Your task to perform on an android device: open app "Etsy: Buy & Sell Unique Items" Image 0: 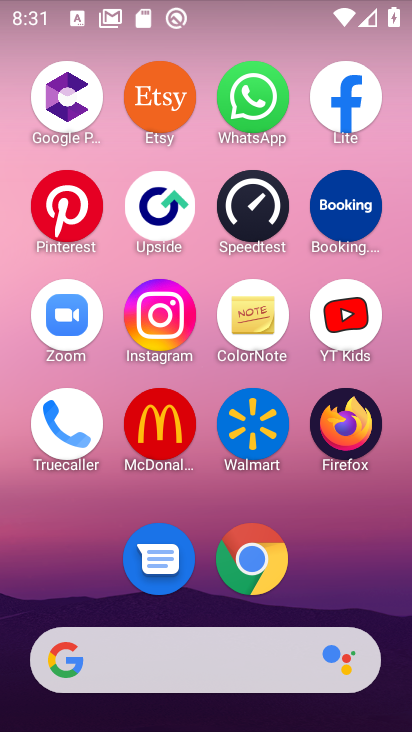
Step 0: drag from (190, 508) to (220, 118)
Your task to perform on an android device: open app "Etsy: Buy & Sell Unique Items" Image 1: 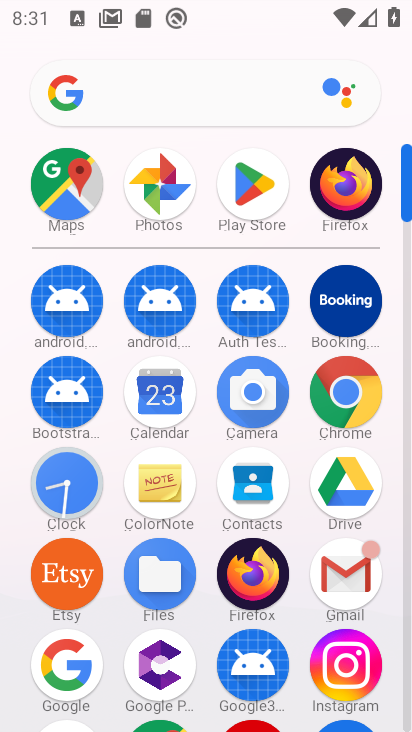
Step 1: click (257, 206)
Your task to perform on an android device: open app "Etsy: Buy & Sell Unique Items" Image 2: 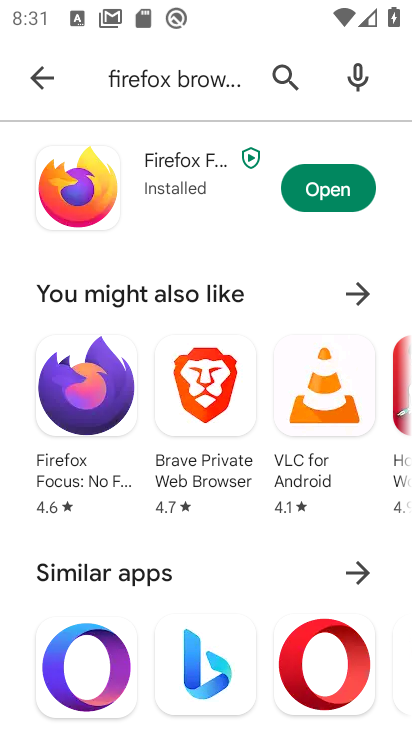
Step 2: click (281, 61)
Your task to perform on an android device: open app "Etsy: Buy & Sell Unique Items" Image 3: 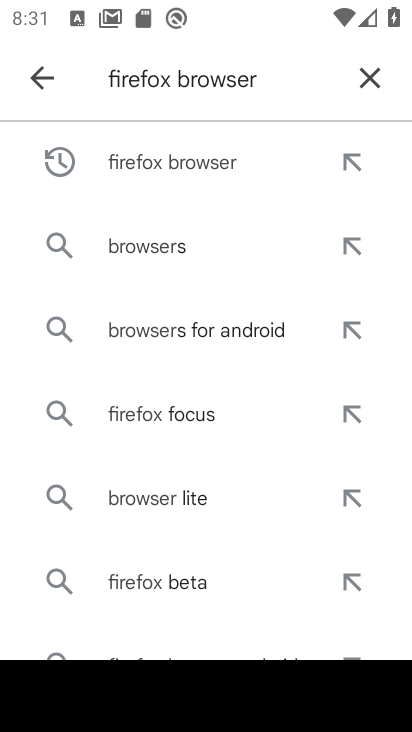
Step 3: click (354, 69)
Your task to perform on an android device: open app "Etsy: Buy & Sell Unique Items" Image 4: 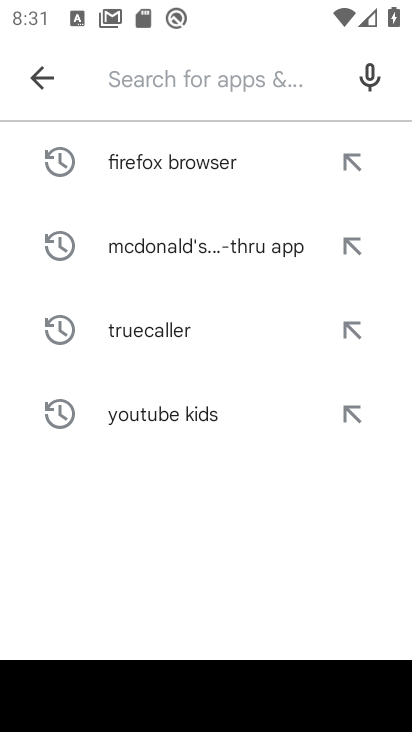
Step 4: type "Etsy: Buy & Sell Unique Item"
Your task to perform on an android device: open app "Etsy: Buy & Sell Unique Items" Image 5: 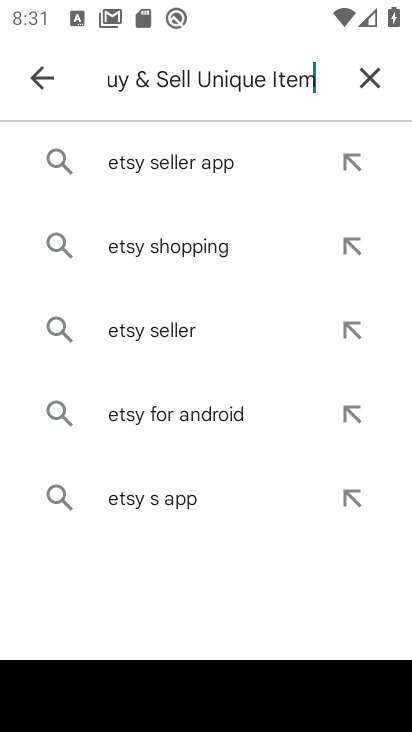
Step 5: type ""
Your task to perform on an android device: open app "Etsy: Buy & Sell Unique Items" Image 6: 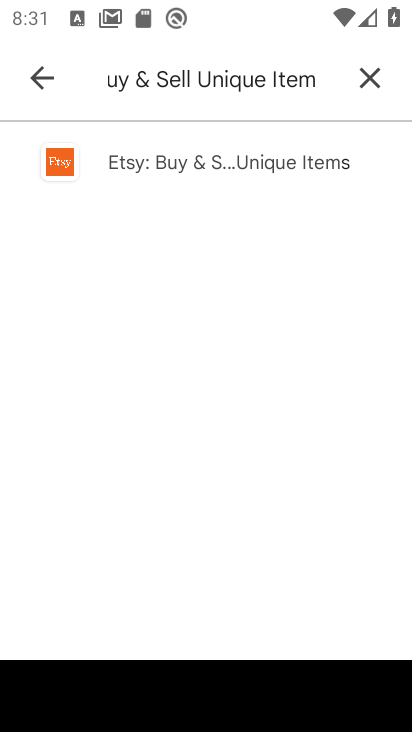
Step 6: click (216, 167)
Your task to perform on an android device: open app "Etsy: Buy & Sell Unique Items" Image 7: 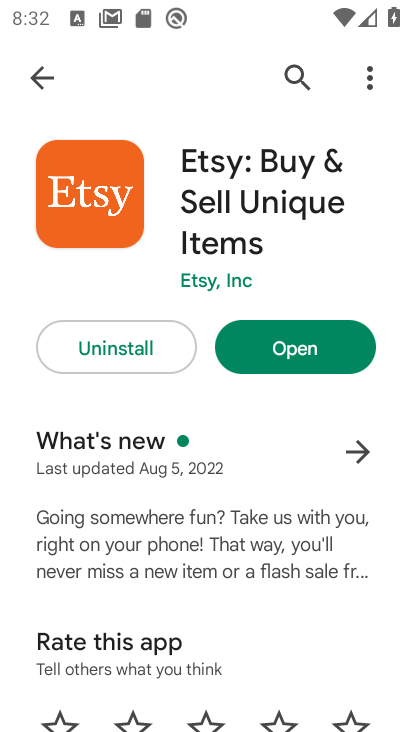
Step 7: click (259, 352)
Your task to perform on an android device: open app "Etsy: Buy & Sell Unique Items" Image 8: 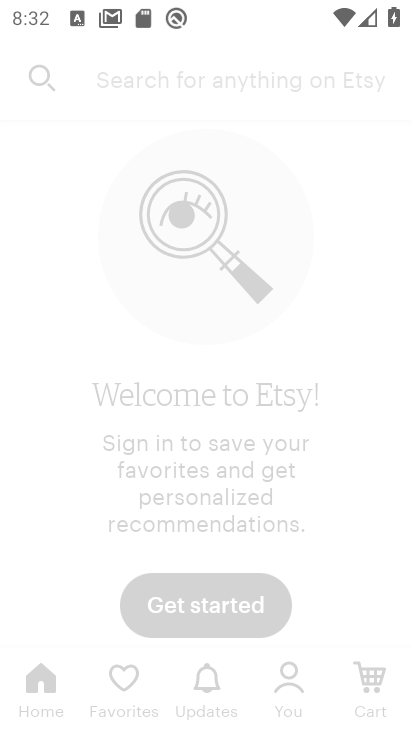
Step 8: task complete